Your task to perform on an android device: Open Google Image 0: 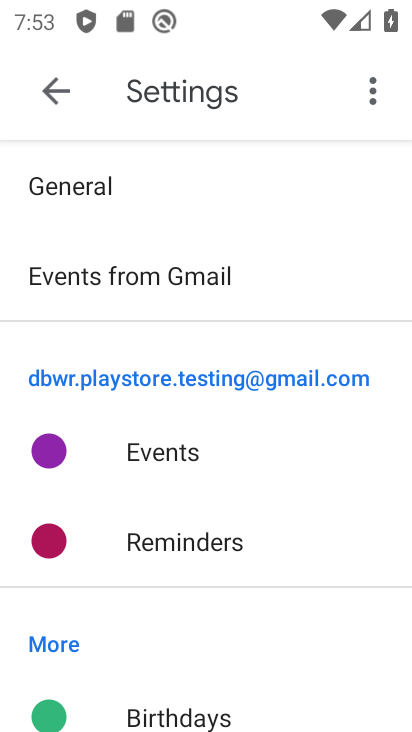
Step 0: press home button
Your task to perform on an android device: Open Google Image 1: 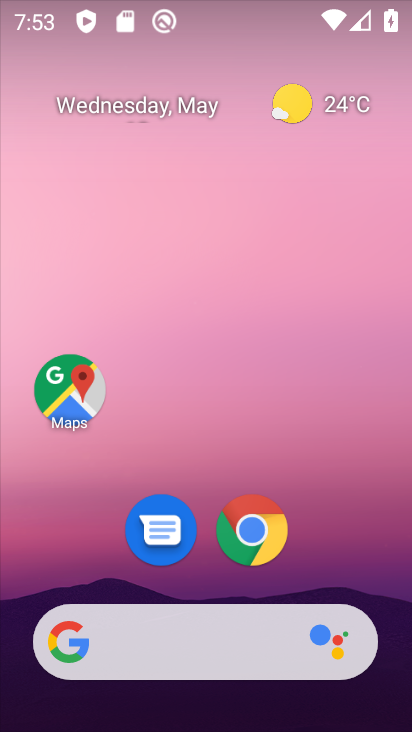
Step 1: drag from (373, 551) to (332, 172)
Your task to perform on an android device: Open Google Image 2: 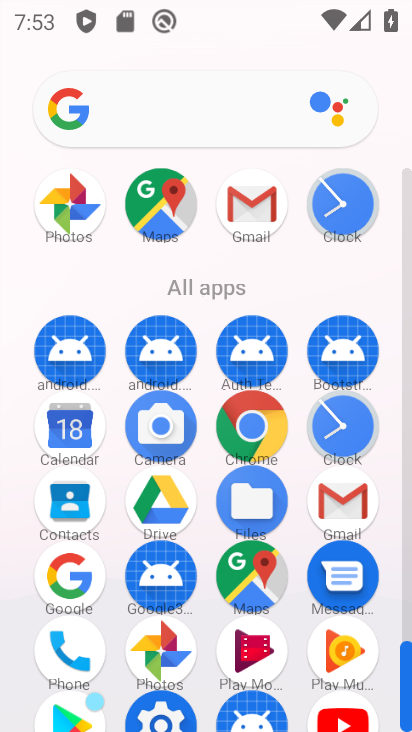
Step 2: click (68, 575)
Your task to perform on an android device: Open Google Image 3: 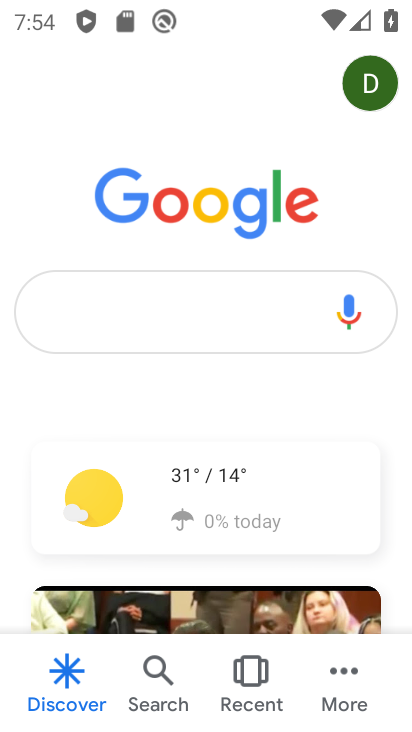
Step 3: task complete